Your task to perform on an android device: show emergency info Image 0: 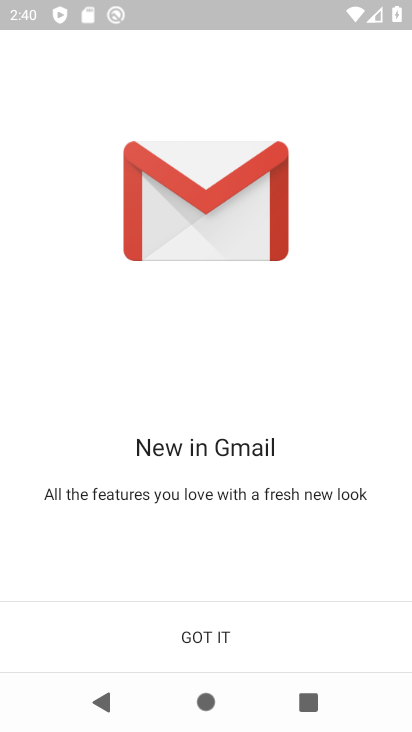
Step 0: press home button
Your task to perform on an android device: show emergency info Image 1: 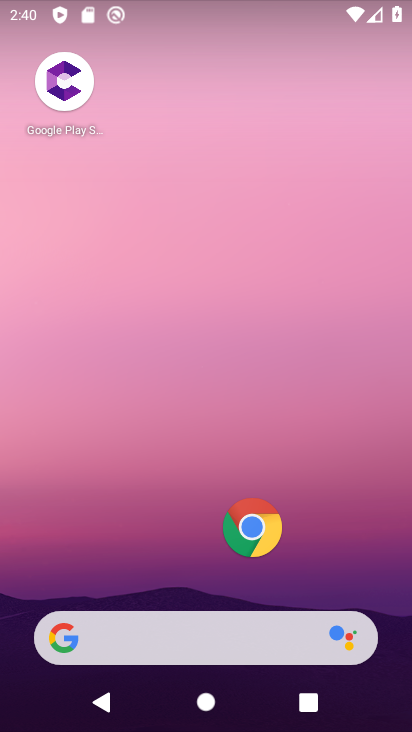
Step 1: drag from (171, 569) to (318, 55)
Your task to perform on an android device: show emergency info Image 2: 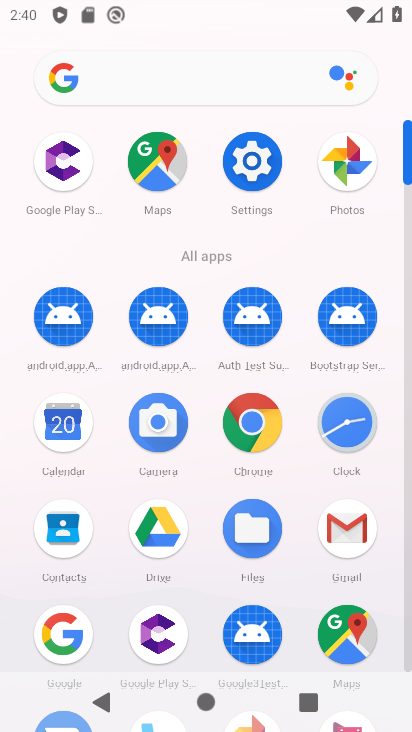
Step 2: drag from (200, 593) to (182, 196)
Your task to perform on an android device: show emergency info Image 3: 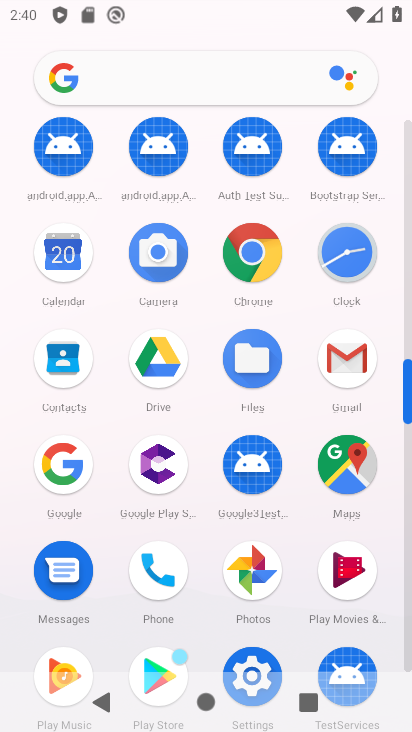
Step 3: click (257, 651)
Your task to perform on an android device: show emergency info Image 4: 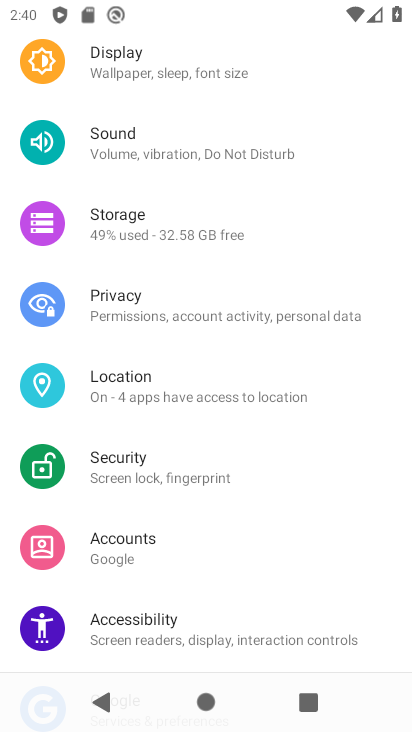
Step 4: drag from (113, 604) to (249, 0)
Your task to perform on an android device: show emergency info Image 5: 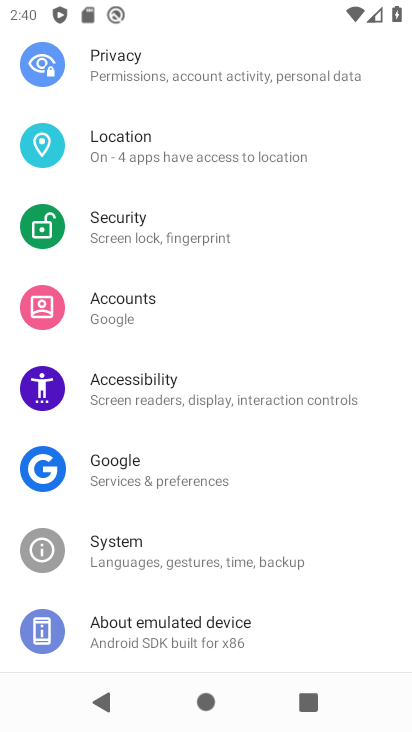
Step 5: click (131, 619)
Your task to perform on an android device: show emergency info Image 6: 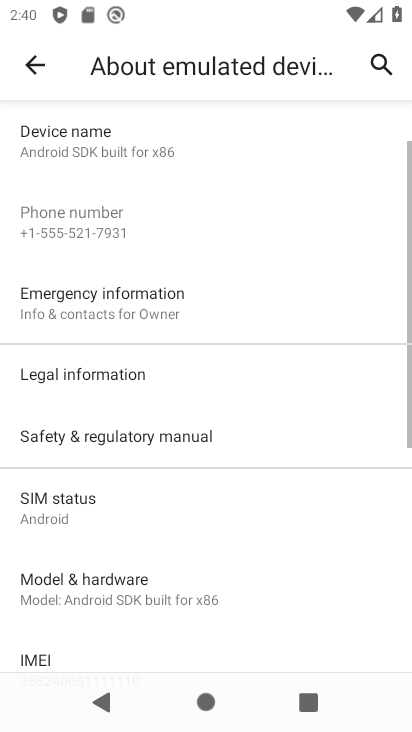
Step 6: click (145, 311)
Your task to perform on an android device: show emergency info Image 7: 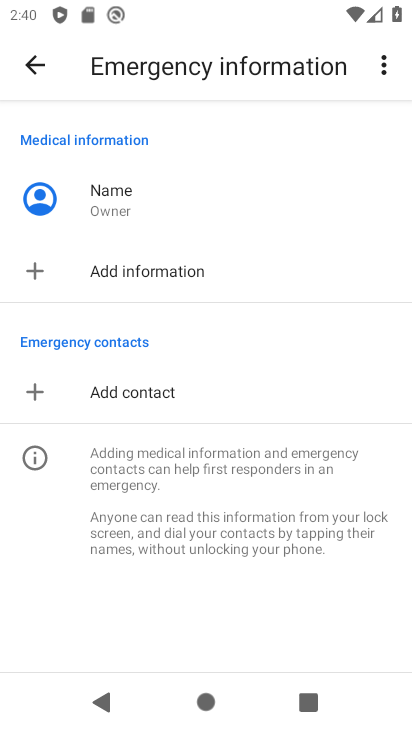
Step 7: task complete